Your task to perform on an android device: Open Chrome and go to the settings page Image 0: 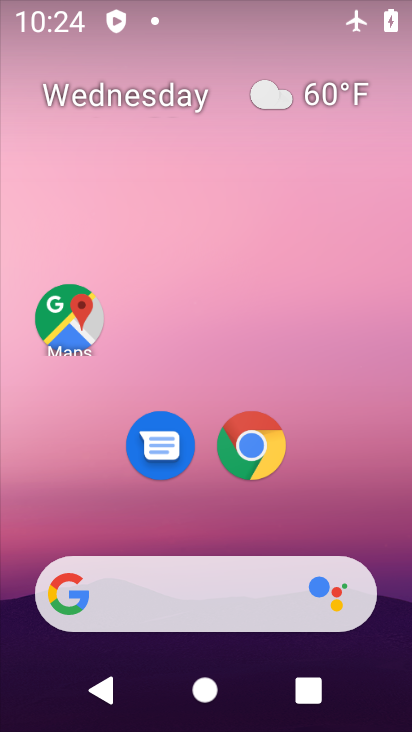
Step 0: click (252, 440)
Your task to perform on an android device: Open Chrome and go to the settings page Image 1: 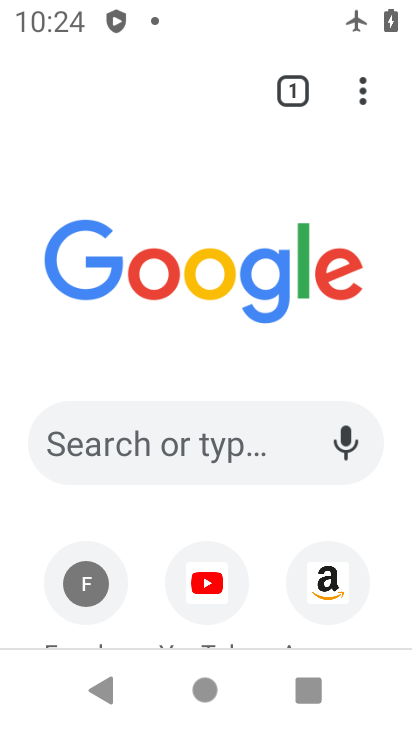
Step 1: task complete